Your task to perform on an android device: open a bookmark in the chrome app Image 0: 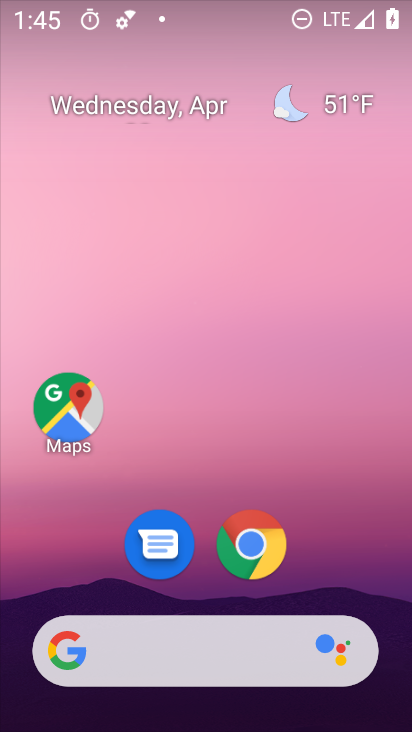
Step 0: drag from (352, 570) to (347, 141)
Your task to perform on an android device: open a bookmark in the chrome app Image 1: 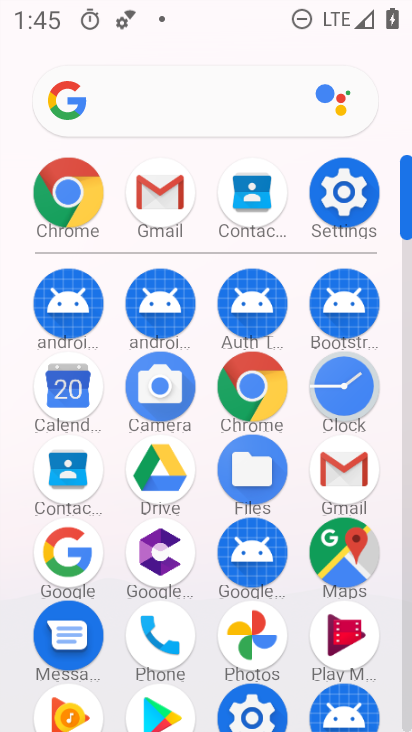
Step 1: click (242, 368)
Your task to perform on an android device: open a bookmark in the chrome app Image 2: 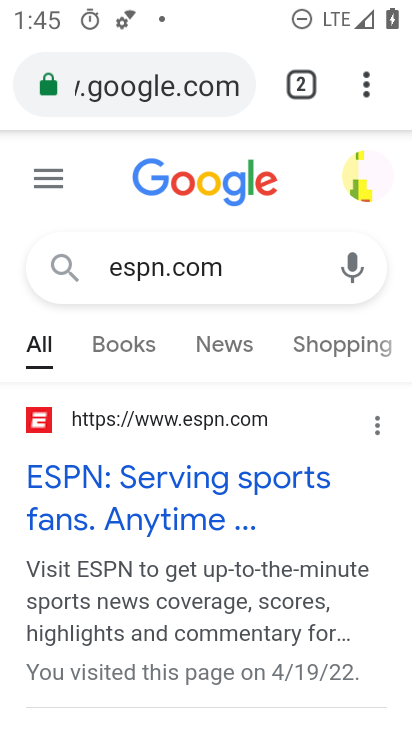
Step 2: click (362, 83)
Your task to perform on an android device: open a bookmark in the chrome app Image 3: 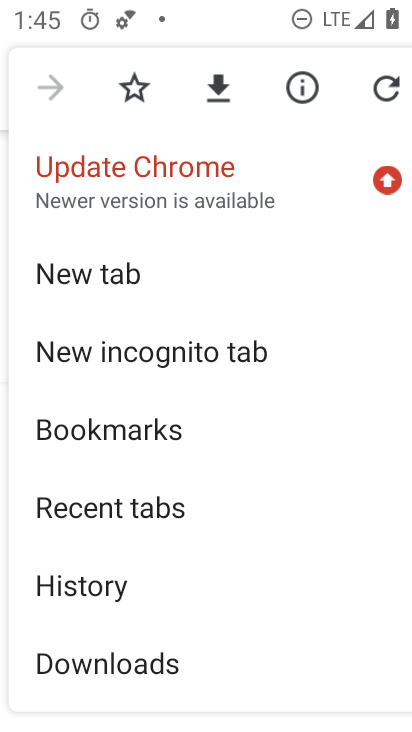
Step 3: drag from (292, 596) to (314, 441)
Your task to perform on an android device: open a bookmark in the chrome app Image 4: 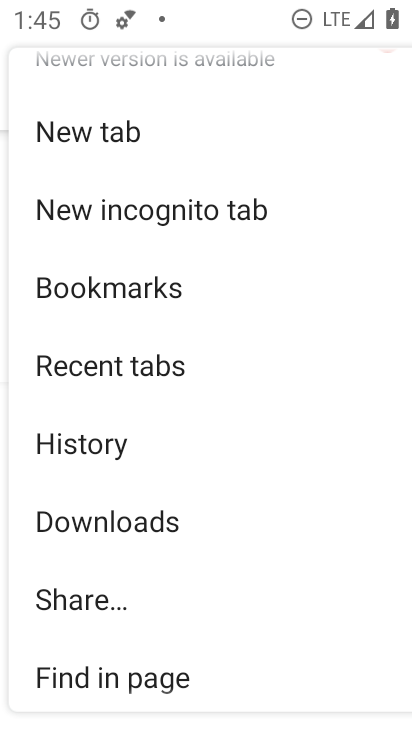
Step 4: drag from (322, 598) to (326, 448)
Your task to perform on an android device: open a bookmark in the chrome app Image 5: 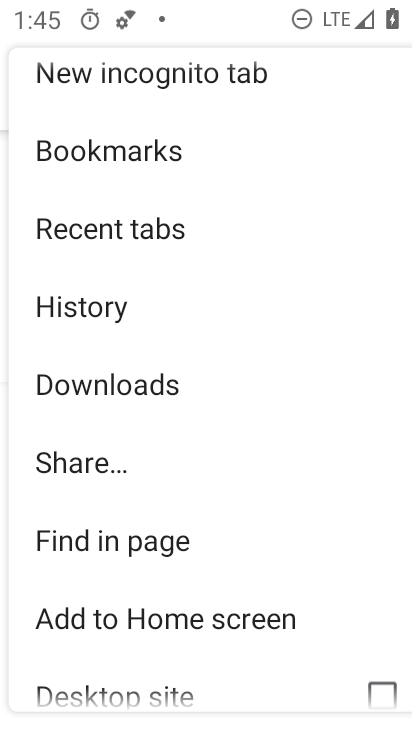
Step 5: drag from (312, 535) to (313, 442)
Your task to perform on an android device: open a bookmark in the chrome app Image 6: 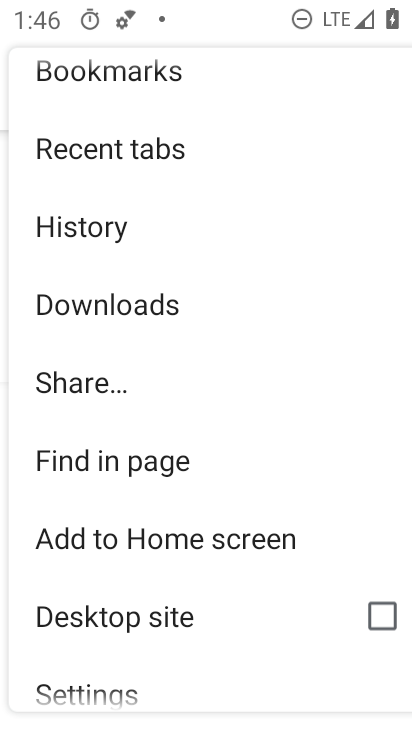
Step 6: drag from (303, 604) to (305, 435)
Your task to perform on an android device: open a bookmark in the chrome app Image 7: 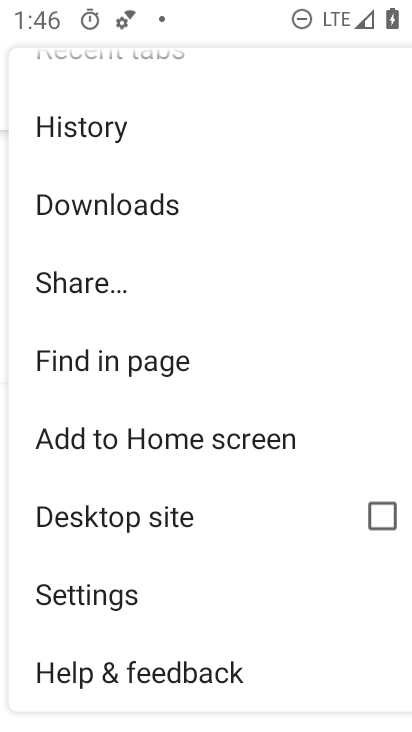
Step 7: drag from (298, 628) to (301, 482)
Your task to perform on an android device: open a bookmark in the chrome app Image 8: 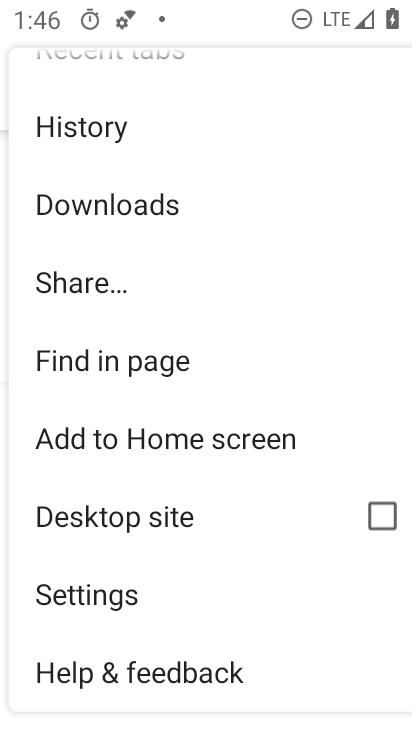
Step 8: drag from (330, 307) to (326, 461)
Your task to perform on an android device: open a bookmark in the chrome app Image 9: 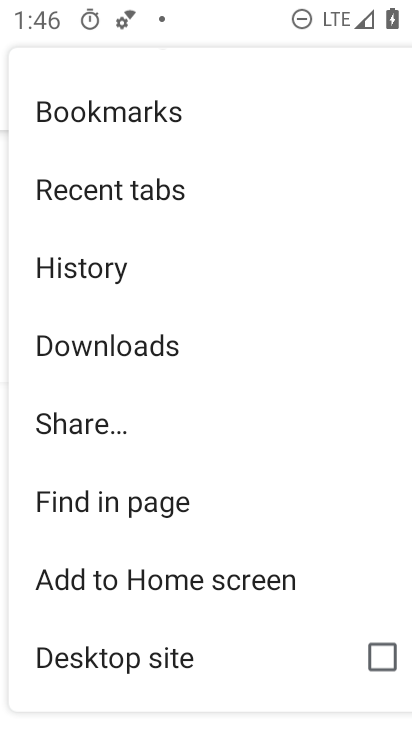
Step 9: drag from (337, 341) to (333, 503)
Your task to perform on an android device: open a bookmark in the chrome app Image 10: 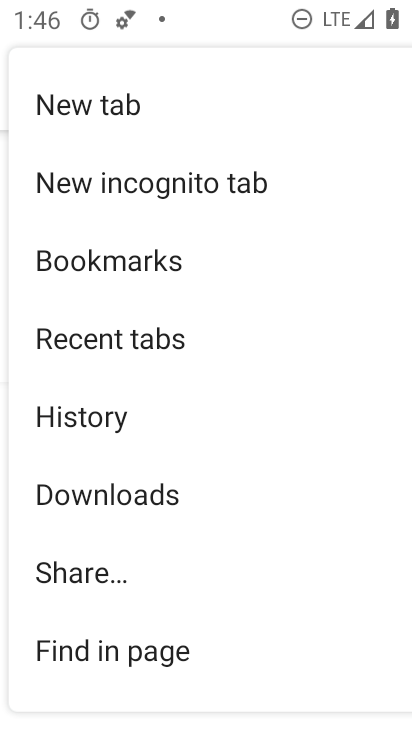
Step 10: drag from (325, 274) to (309, 468)
Your task to perform on an android device: open a bookmark in the chrome app Image 11: 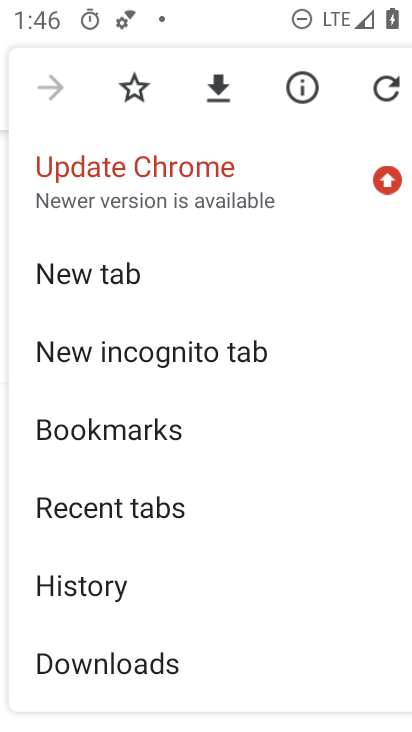
Step 11: click (143, 429)
Your task to perform on an android device: open a bookmark in the chrome app Image 12: 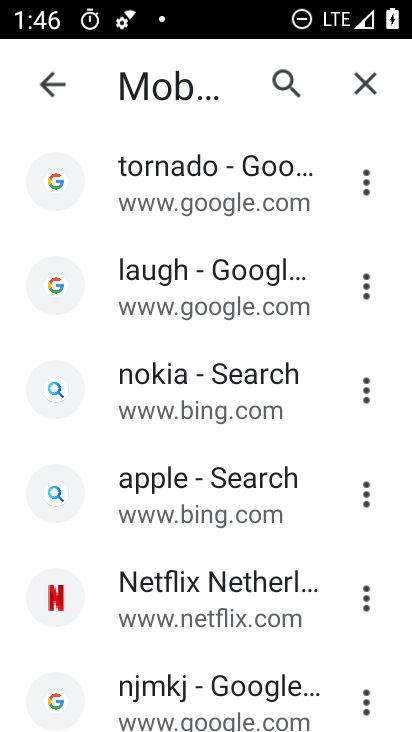
Step 12: click (195, 182)
Your task to perform on an android device: open a bookmark in the chrome app Image 13: 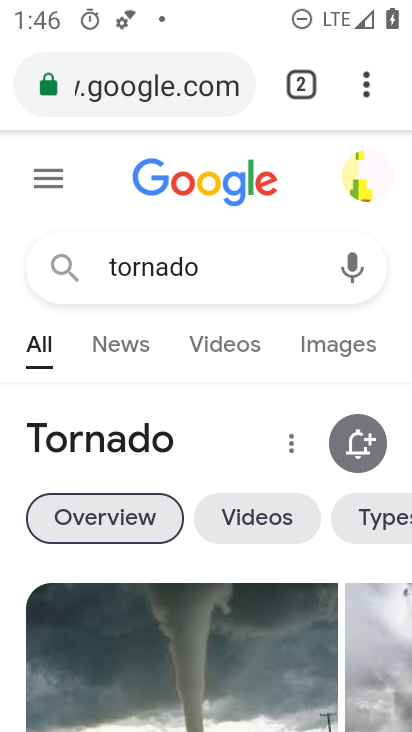
Step 13: task complete